Your task to perform on an android device: empty trash in google photos Image 0: 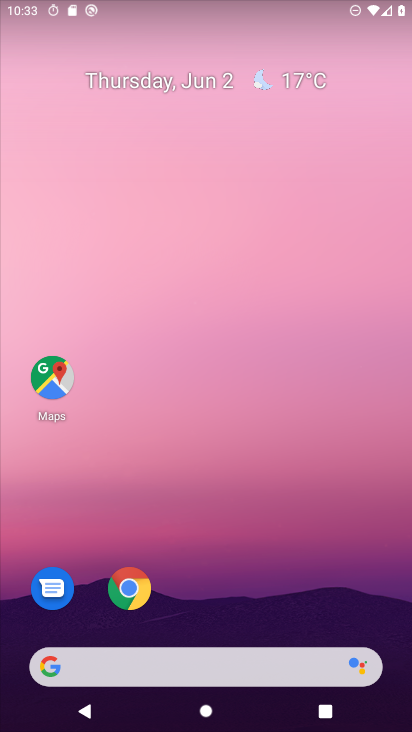
Step 0: drag from (204, 476) to (210, 241)
Your task to perform on an android device: empty trash in google photos Image 1: 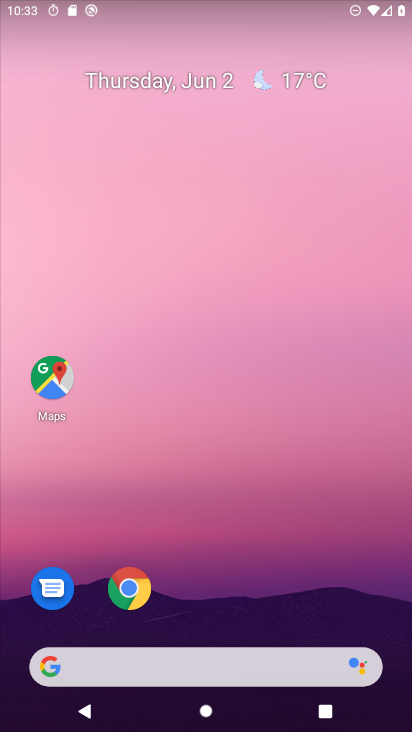
Step 1: drag from (250, 671) to (332, 120)
Your task to perform on an android device: empty trash in google photos Image 2: 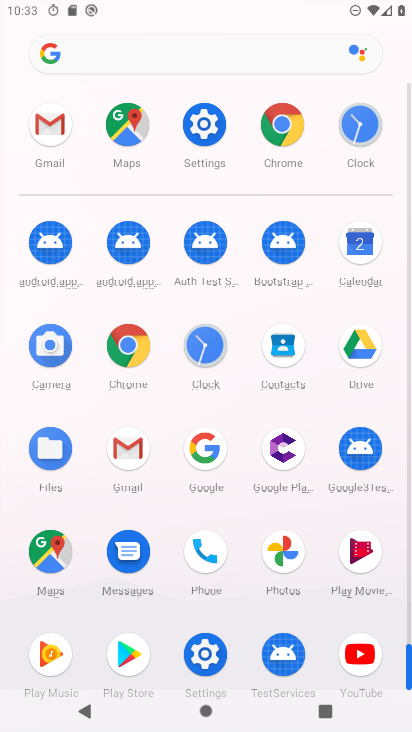
Step 2: click (290, 552)
Your task to perform on an android device: empty trash in google photos Image 3: 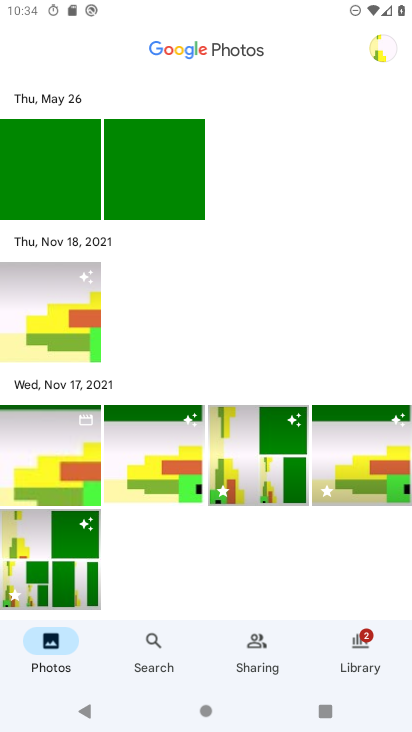
Step 3: click (388, 55)
Your task to perform on an android device: empty trash in google photos Image 4: 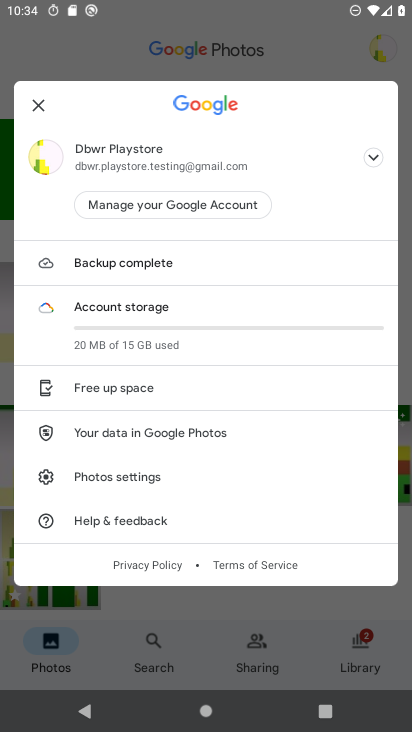
Step 4: task complete